Your task to perform on an android device: toggle translation in the chrome app Image 0: 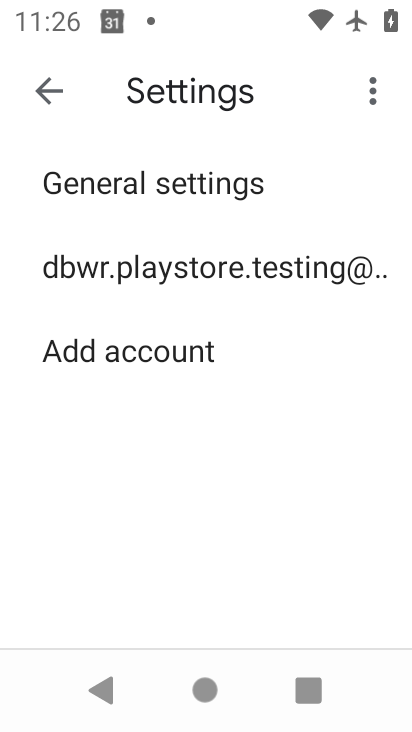
Step 0: press home button
Your task to perform on an android device: toggle translation in the chrome app Image 1: 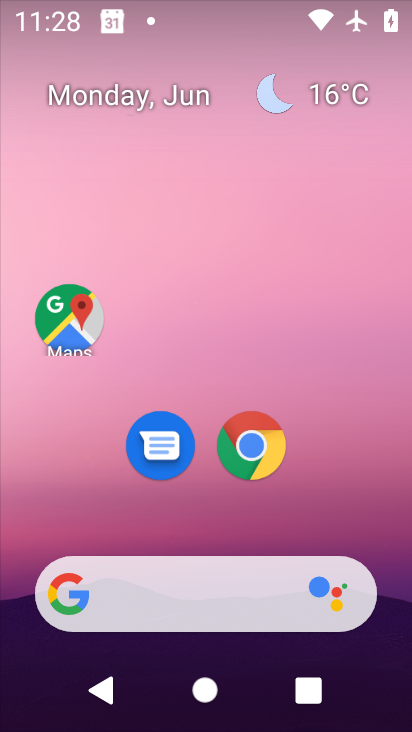
Step 1: click (254, 446)
Your task to perform on an android device: toggle translation in the chrome app Image 2: 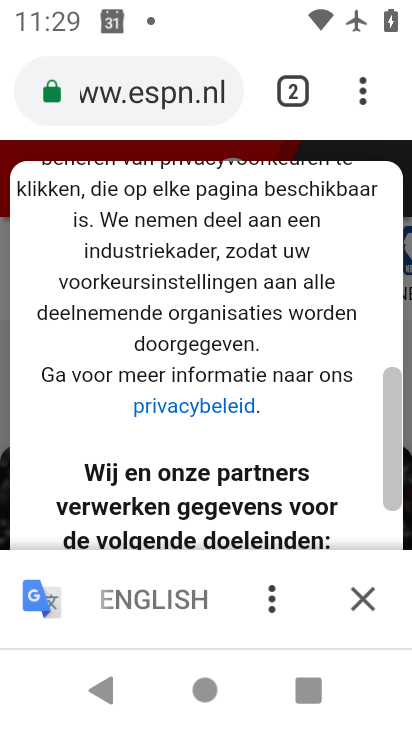
Step 2: drag from (361, 83) to (225, 435)
Your task to perform on an android device: toggle translation in the chrome app Image 3: 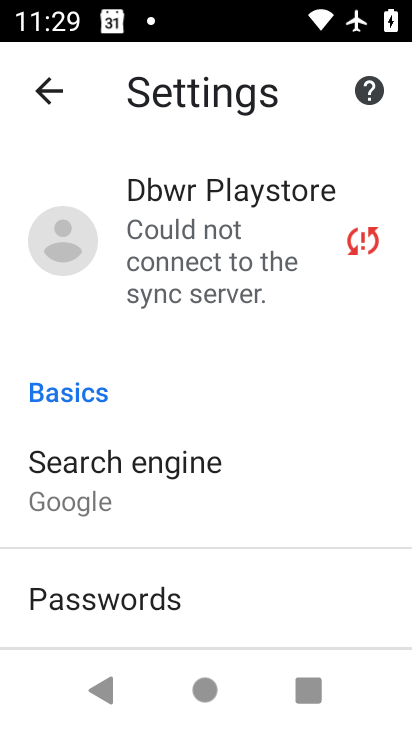
Step 3: drag from (187, 483) to (188, 9)
Your task to perform on an android device: toggle translation in the chrome app Image 4: 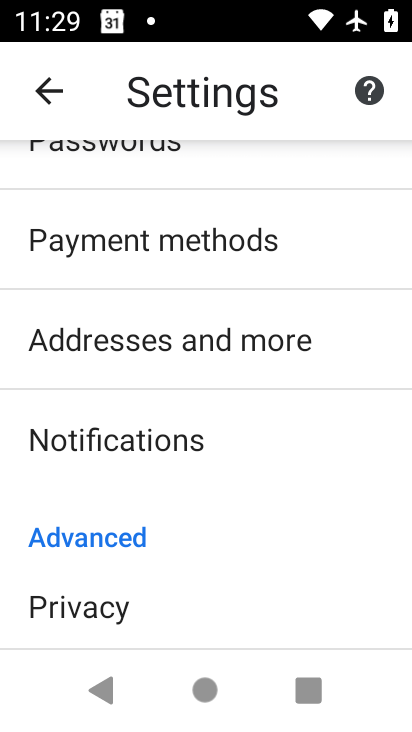
Step 4: drag from (318, 557) to (221, 118)
Your task to perform on an android device: toggle translation in the chrome app Image 5: 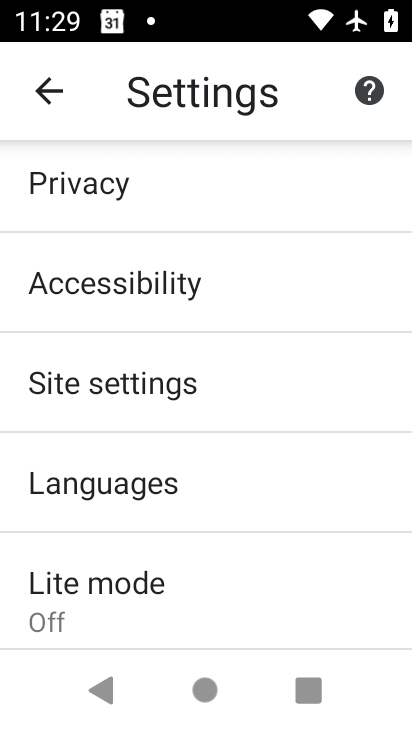
Step 5: click (105, 491)
Your task to perform on an android device: toggle translation in the chrome app Image 6: 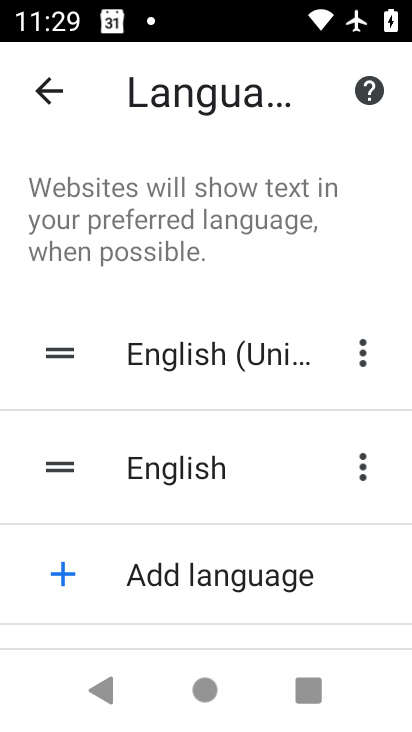
Step 6: drag from (262, 545) to (215, 109)
Your task to perform on an android device: toggle translation in the chrome app Image 7: 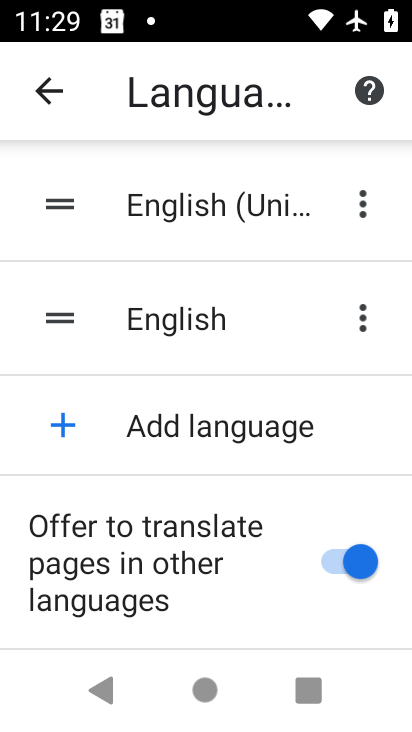
Step 7: click (377, 569)
Your task to perform on an android device: toggle translation in the chrome app Image 8: 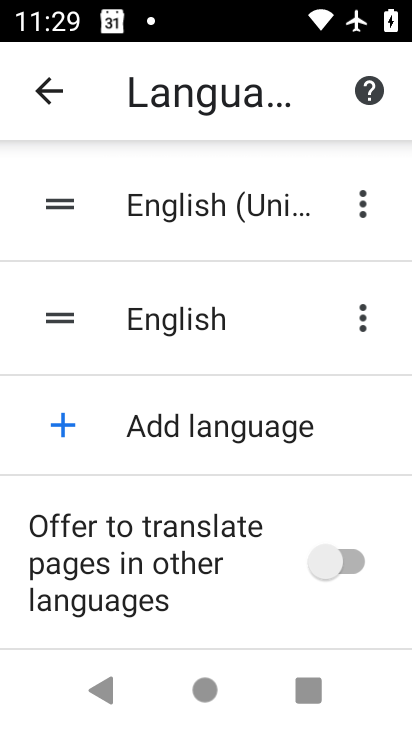
Step 8: task complete